Your task to perform on an android device: check android version Image 0: 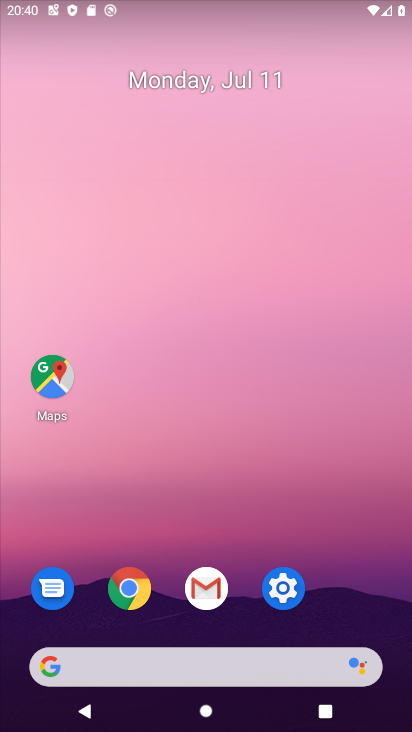
Step 0: click (281, 604)
Your task to perform on an android device: check android version Image 1: 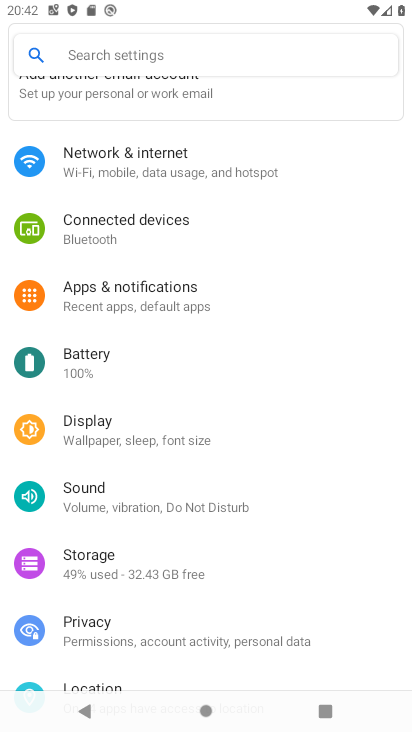
Step 1: click (94, 41)
Your task to perform on an android device: check android version Image 2: 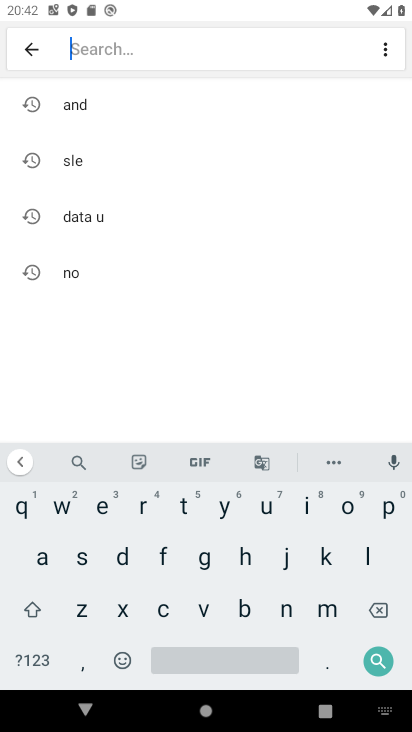
Step 2: click (39, 551)
Your task to perform on an android device: check android version Image 3: 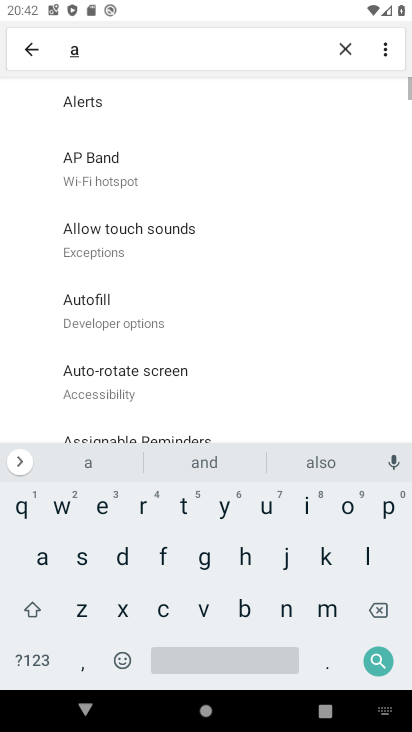
Step 3: click (283, 607)
Your task to perform on an android device: check android version Image 4: 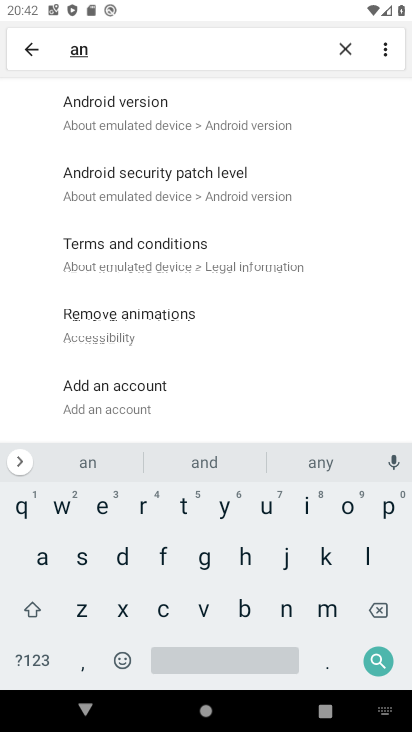
Step 4: click (155, 120)
Your task to perform on an android device: check android version Image 5: 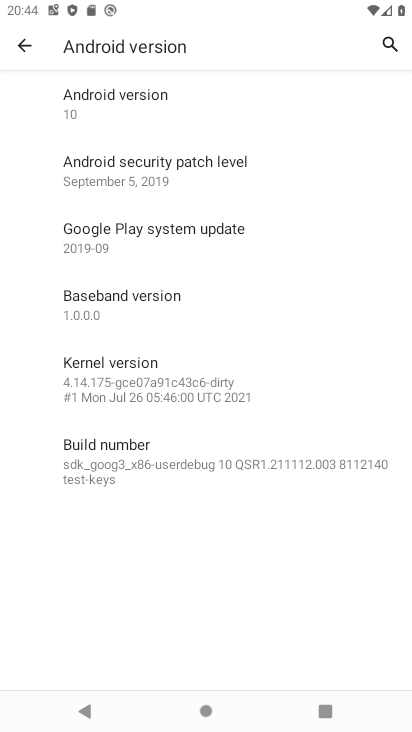
Step 5: task complete